Your task to perform on an android device: all mails in gmail Image 0: 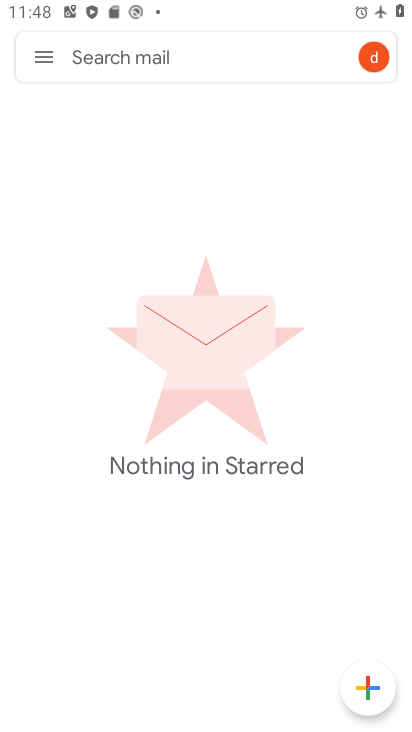
Step 0: press home button
Your task to perform on an android device: all mails in gmail Image 1: 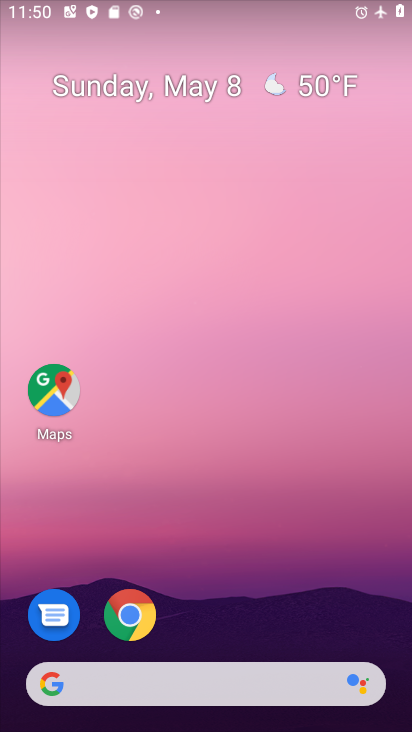
Step 1: drag from (269, 720) to (304, 139)
Your task to perform on an android device: all mails in gmail Image 2: 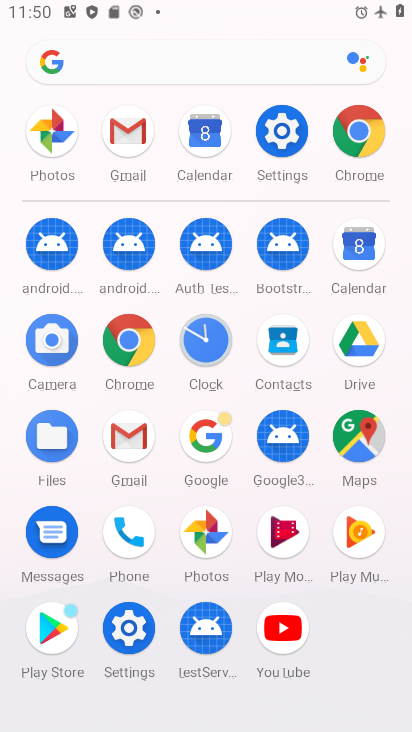
Step 2: click (119, 165)
Your task to perform on an android device: all mails in gmail Image 3: 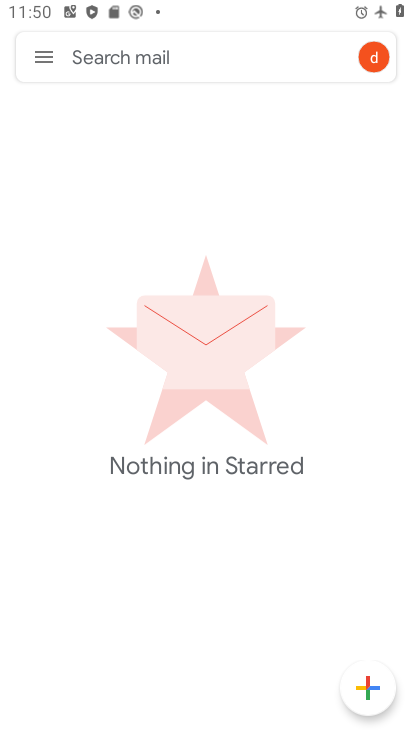
Step 3: click (44, 54)
Your task to perform on an android device: all mails in gmail Image 4: 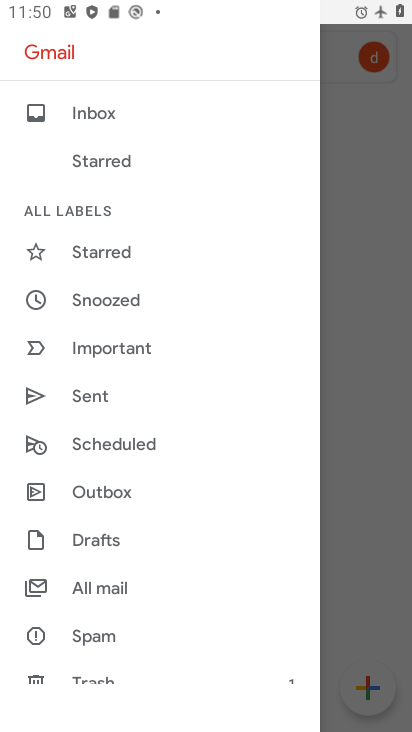
Step 4: click (101, 577)
Your task to perform on an android device: all mails in gmail Image 5: 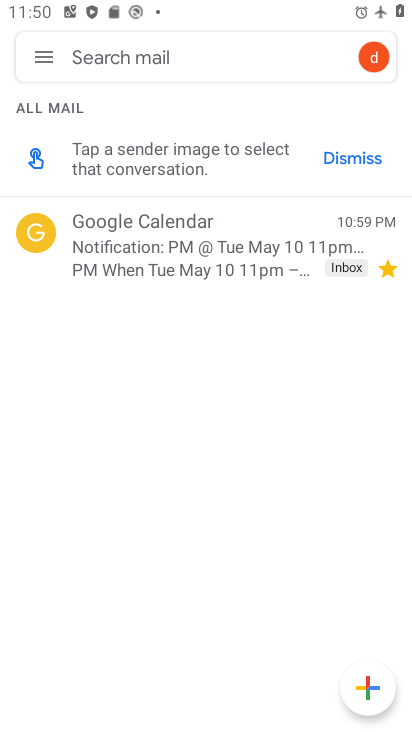
Step 5: task complete